Your task to perform on an android device: open the mobile data screen to see how much data has been used Image 0: 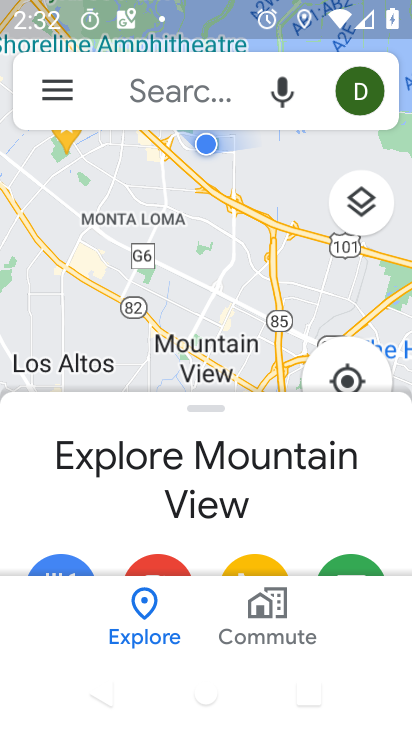
Step 0: press home button
Your task to perform on an android device: open the mobile data screen to see how much data has been used Image 1: 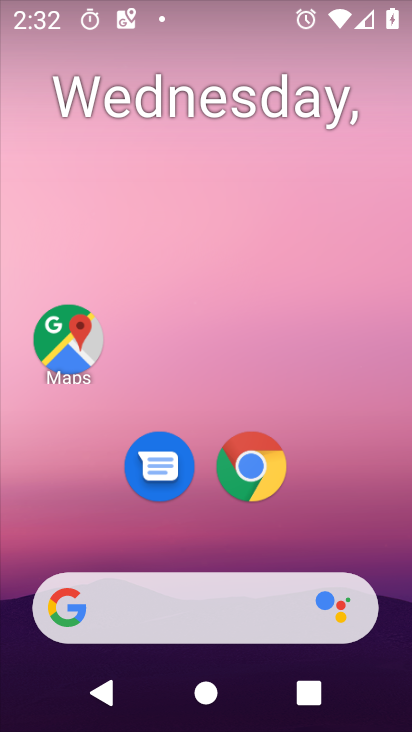
Step 1: drag from (308, 543) to (299, 13)
Your task to perform on an android device: open the mobile data screen to see how much data has been used Image 2: 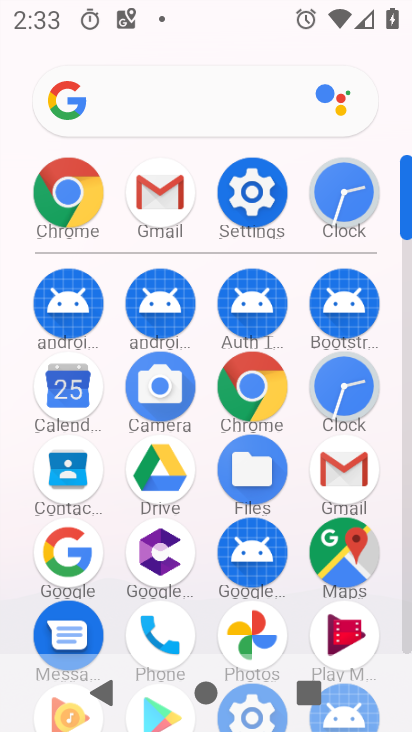
Step 2: click (246, 182)
Your task to perform on an android device: open the mobile data screen to see how much data has been used Image 3: 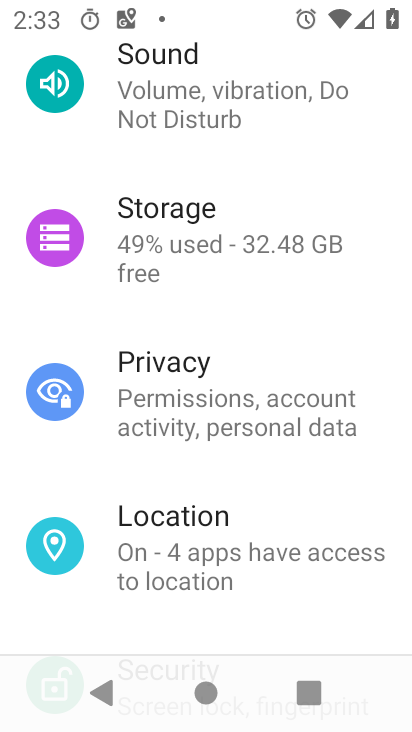
Step 3: drag from (258, 174) to (233, 471)
Your task to perform on an android device: open the mobile data screen to see how much data has been used Image 4: 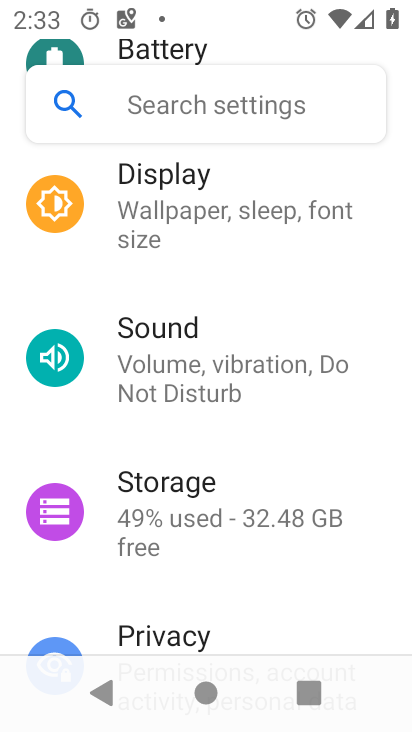
Step 4: drag from (264, 246) to (277, 513)
Your task to perform on an android device: open the mobile data screen to see how much data has been used Image 5: 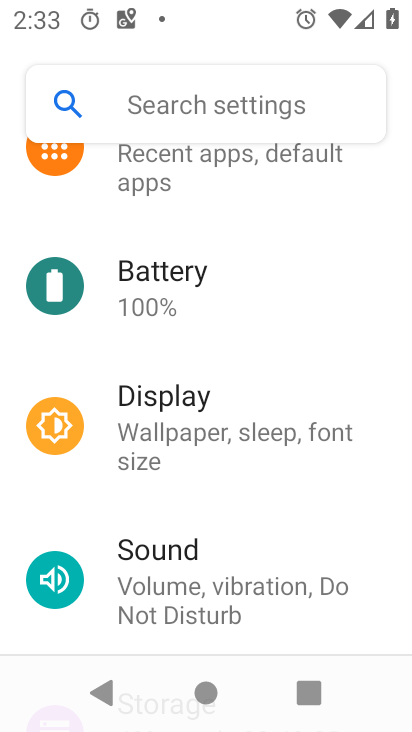
Step 5: drag from (316, 249) to (256, 573)
Your task to perform on an android device: open the mobile data screen to see how much data has been used Image 6: 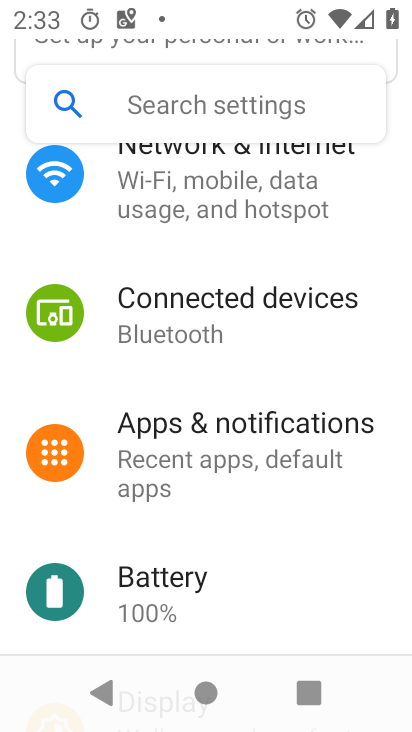
Step 6: click (271, 198)
Your task to perform on an android device: open the mobile data screen to see how much data has been used Image 7: 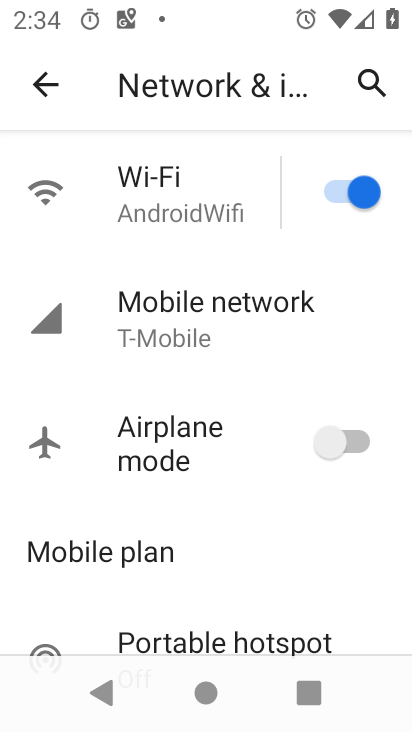
Step 7: click (160, 335)
Your task to perform on an android device: open the mobile data screen to see how much data has been used Image 8: 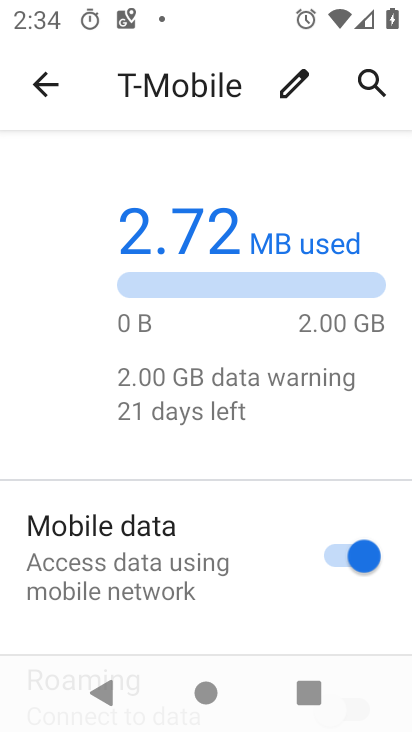
Step 8: drag from (217, 517) to (243, 134)
Your task to perform on an android device: open the mobile data screen to see how much data has been used Image 9: 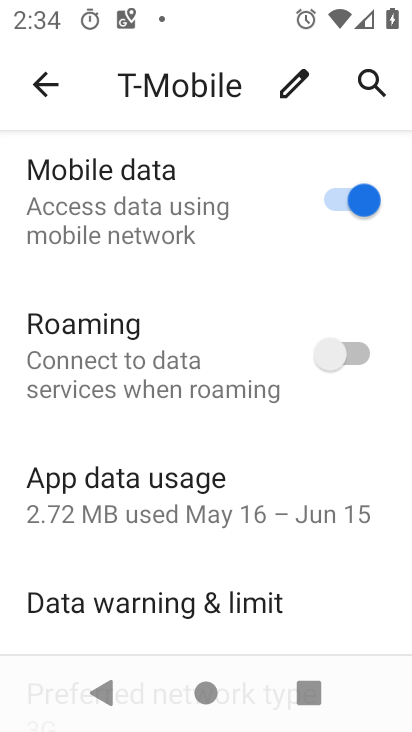
Step 9: click (162, 484)
Your task to perform on an android device: open the mobile data screen to see how much data has been used Image 10: 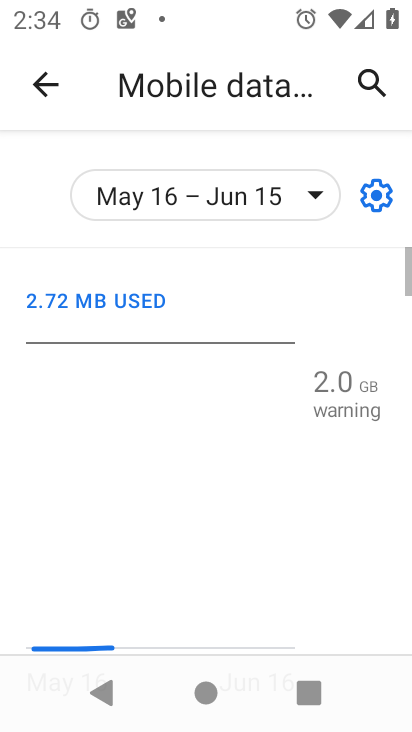
Step 10: task complete